Your task to perform on an android device: check google app version Image 0: 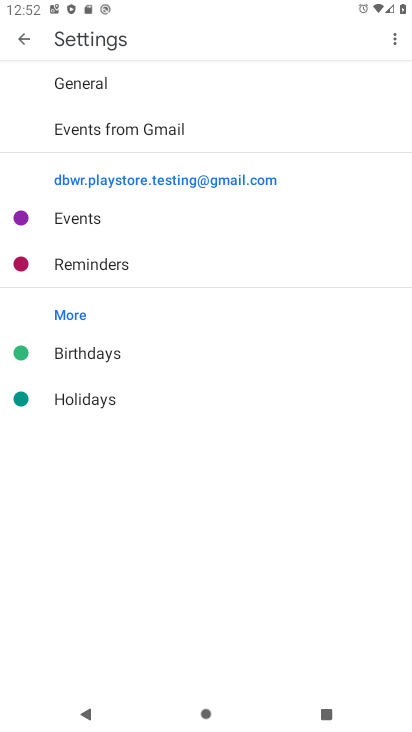
Step 0: press home button
Your task to perform on an android device: check google app version Image 1: 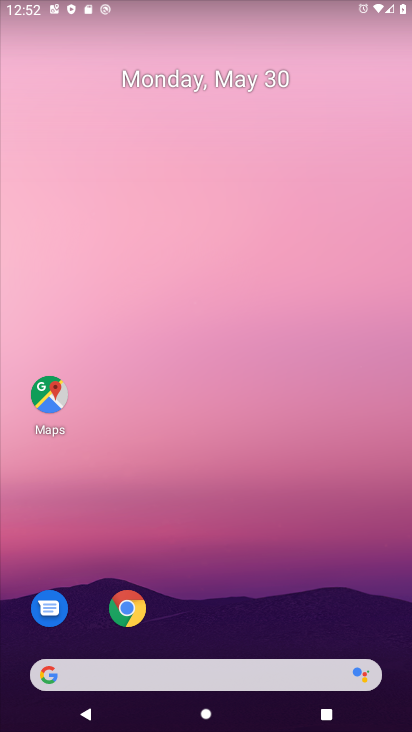
Step 1: drag from (215, 591) to (254, 162)
Your task to perform on an android device: check google app version Image 2: 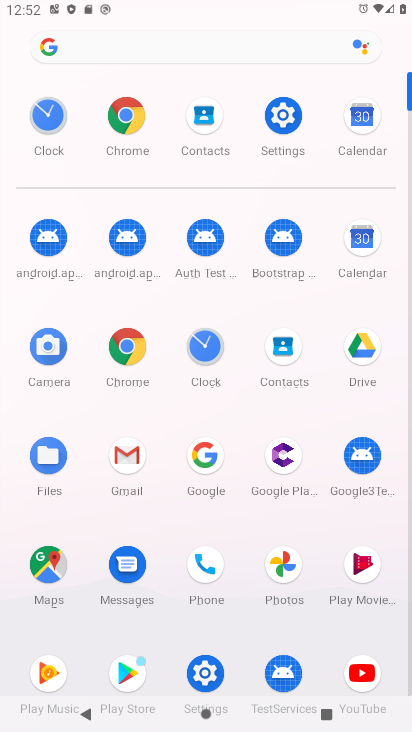
Step 2: click (149, 46)
Your task to perform on an android device: check google app version Image 3: 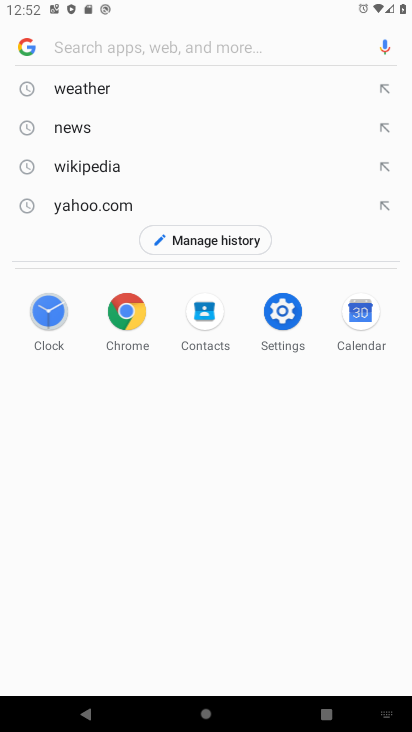
Step 3: click (19, 31)
Your task to perform on an android device: check google app version Image 4: 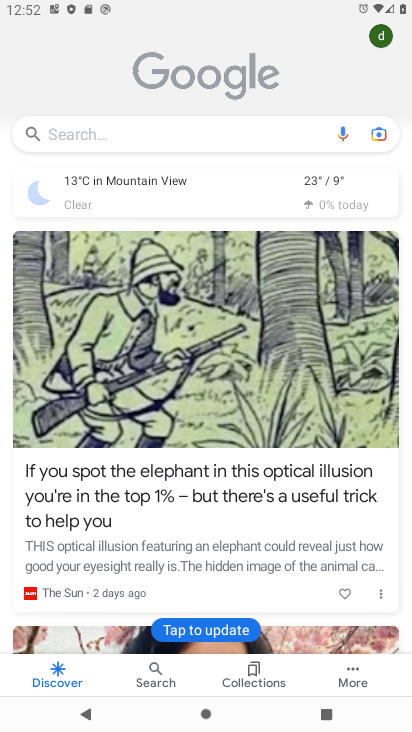
Step 4: click (349, 673)
Your task to perform on an android device: check google app version Image 5: 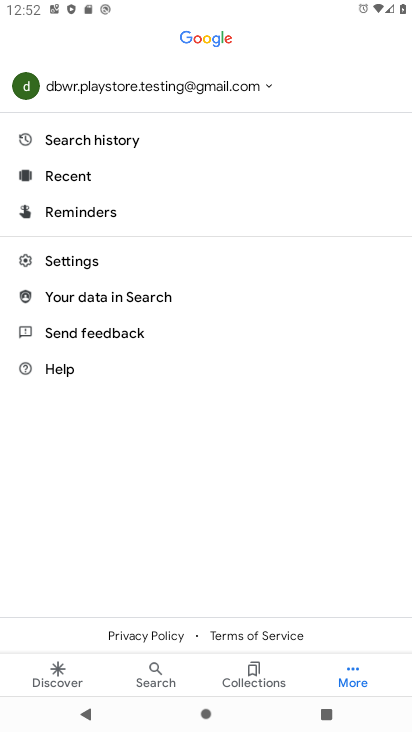
Step 5: click (51, 258)
Your task to perform on an android device: check google app version Image 6: 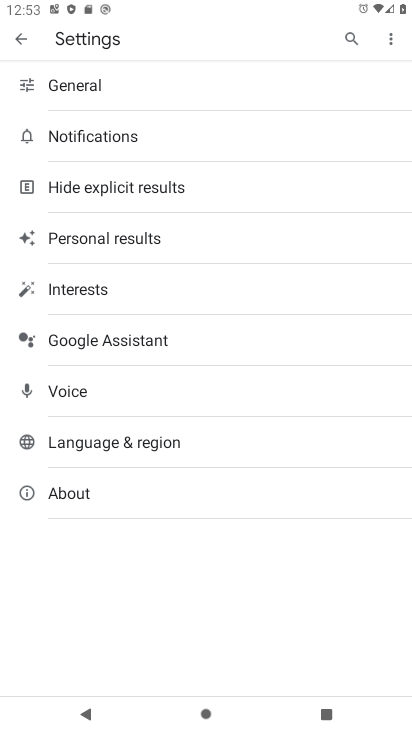
Step 6: click (87, 475)
Your task to perform on an android device: check google app version Image 7: 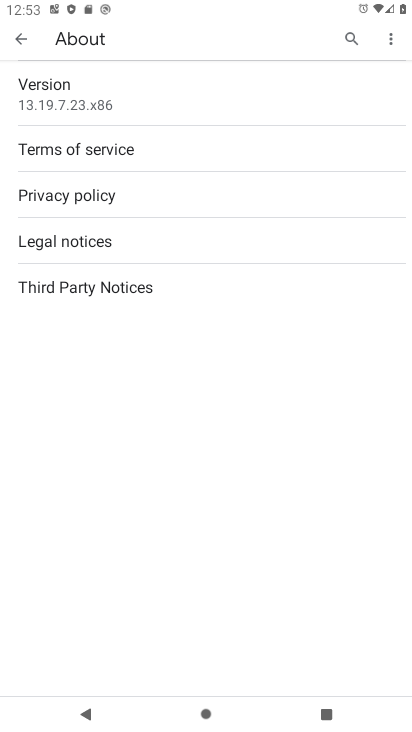
Step 7: click (161, 106)
Your task to perform on an android device: check google app version Image 8: 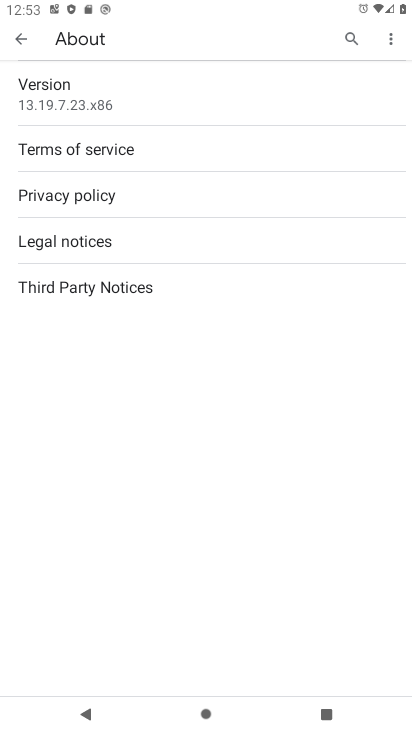
Step 8: task complete